Your task to perform on an android device: Add "asus zenbook" to the cart on target, then select checkout. Image 0: 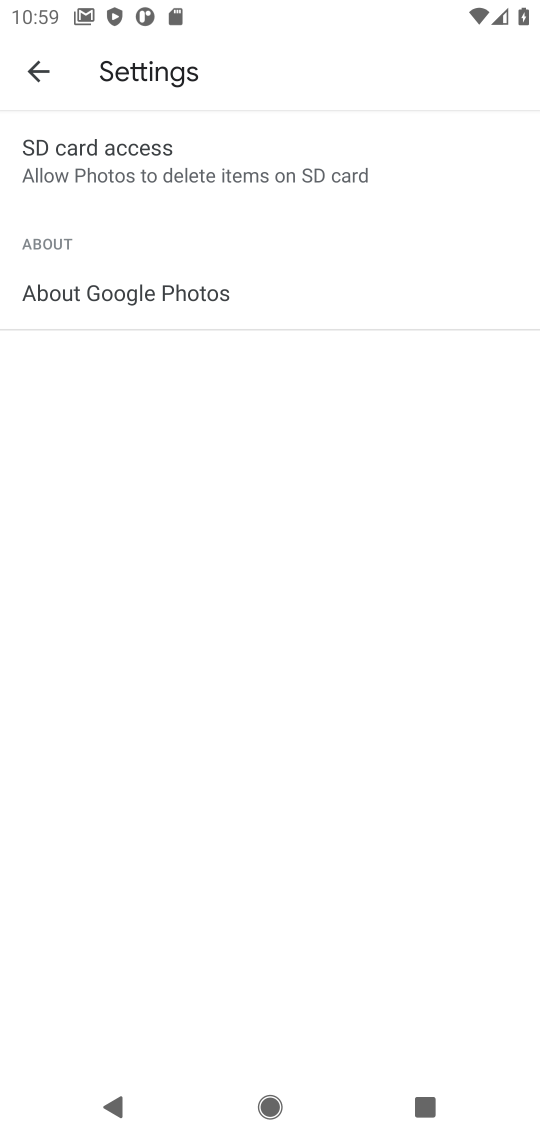
Step 0: press home button
Your task to perform on an android device: Add "asus zenbook" to the cart on target, then select checkout. Image 1: 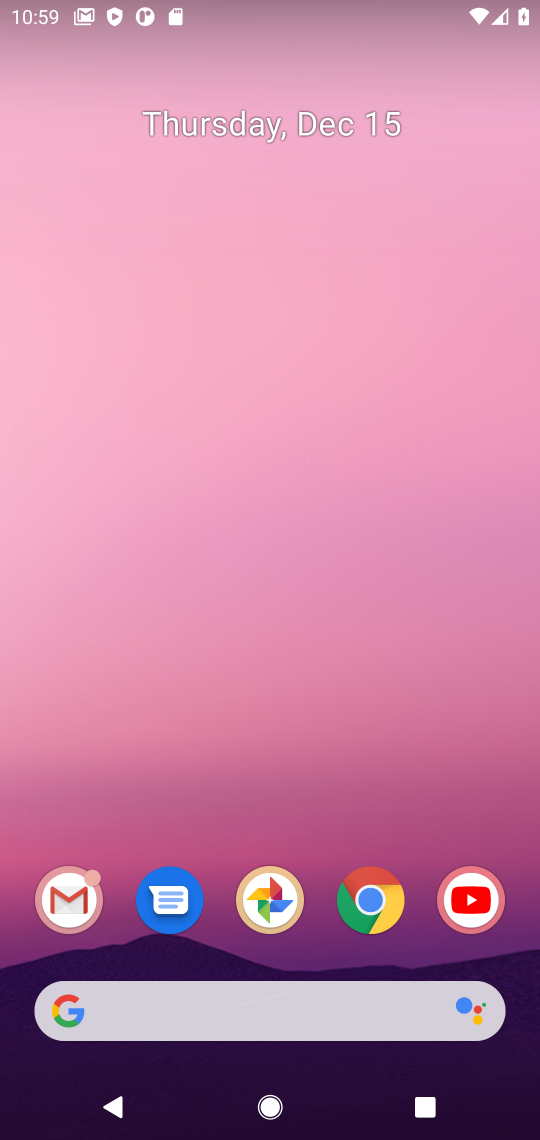
Step 1: click (362, 919)
Your task to perform on an android device: Add "asus zenbook" to the cart on target, then select checkout. Image 2: 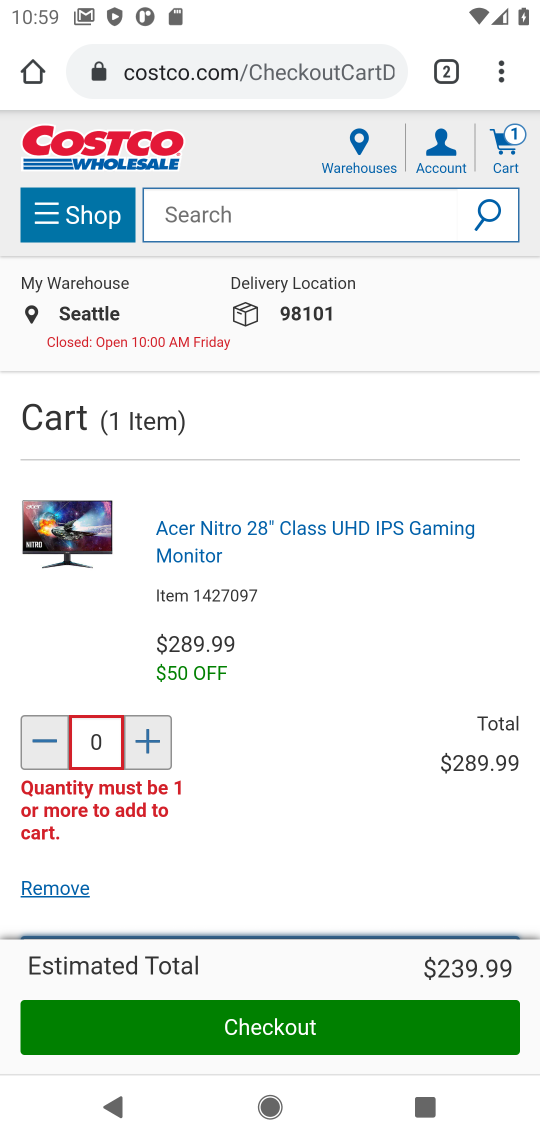
Step 2: click (242, 73)
Your task to perform on an android device: Add "asus zenbook" to the cart on target, then select checkout. Image 3: 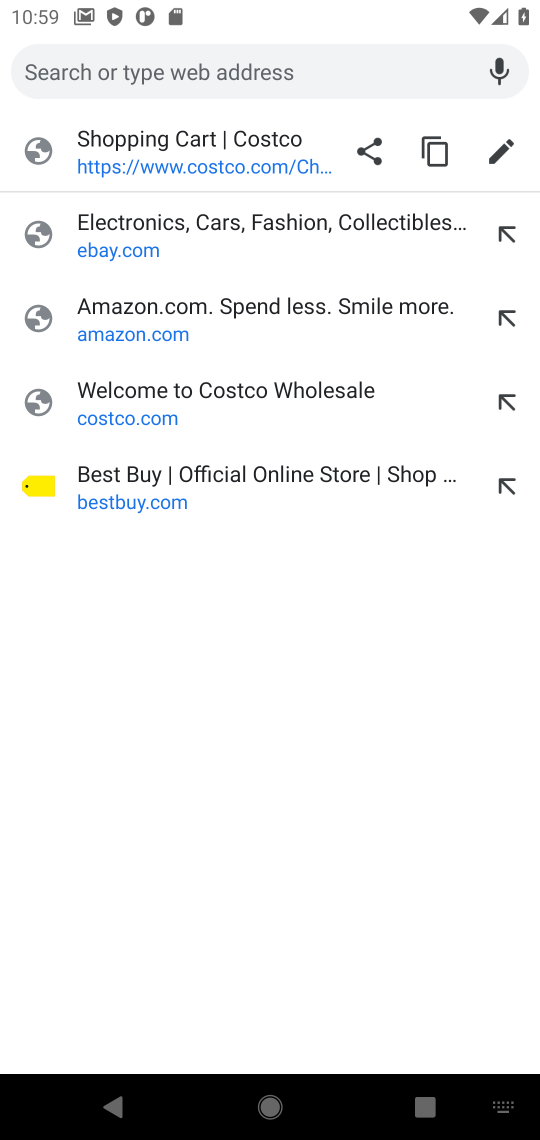
Step 3: type "target"
Your task to perform on an android device: Add "asus zenbook" to the cart on target, then select checkout. Image 4: 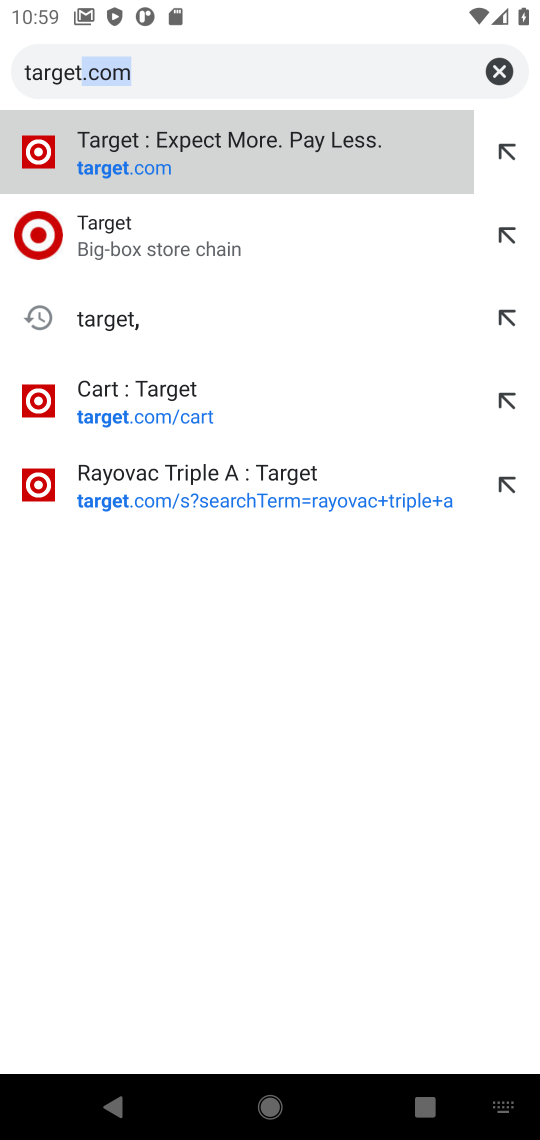
Step 4: click (104, 153)
Your task to perform on an android device: Add "asus zenbook" to the cart on target, then select checkout. Image 5: 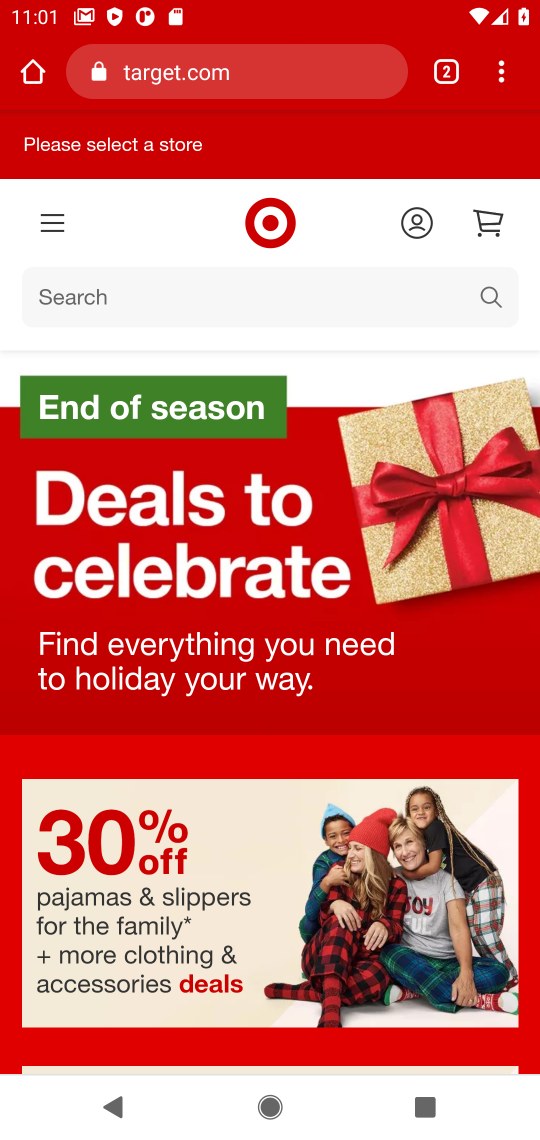
Step 5: click (181, 298)
Your task to perform on an android device: Add "asus zenbook" to the cart on target, then select checkout. Image 6: 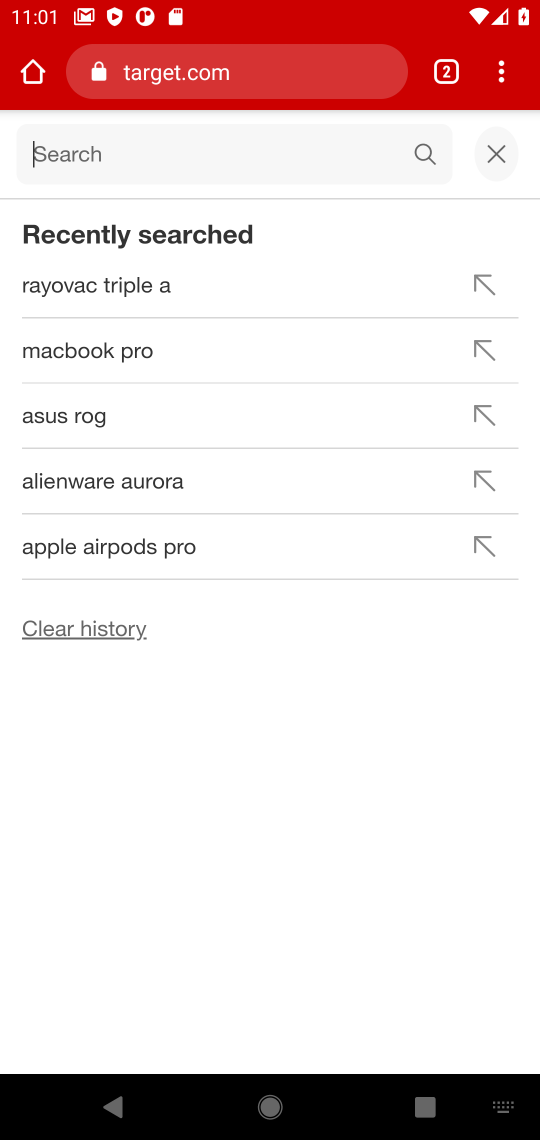
Step 6: type "asus zenbook"
Your task to perform on an android device: Add "asus zenbook" to the cart on target, then select checkout. Image 7: 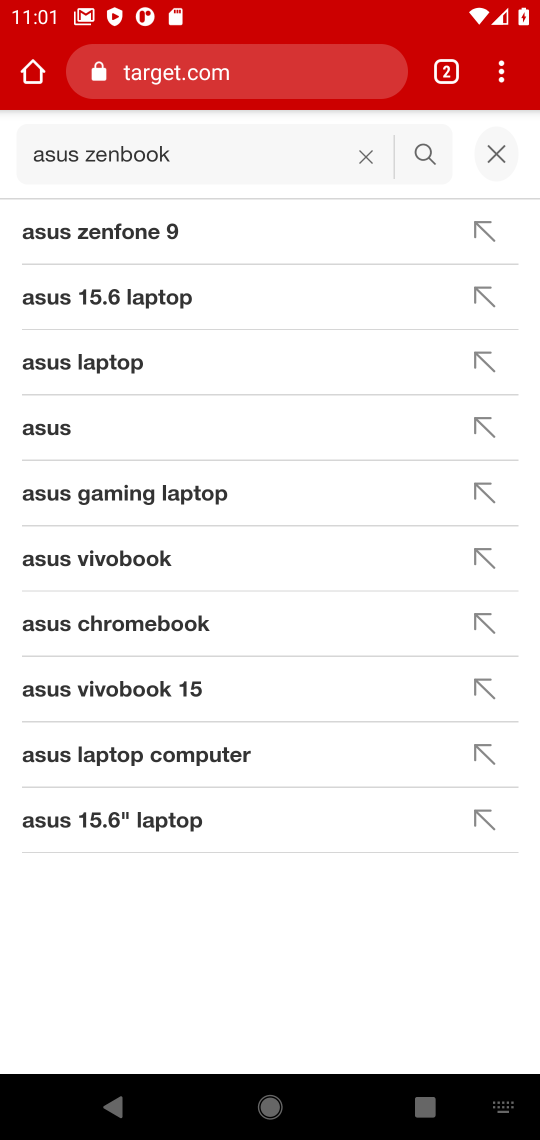
Step 7: press enter
Your task to perform on an android device: Add "asus zenbook" to the cart on target, then select checkout. Image 8: 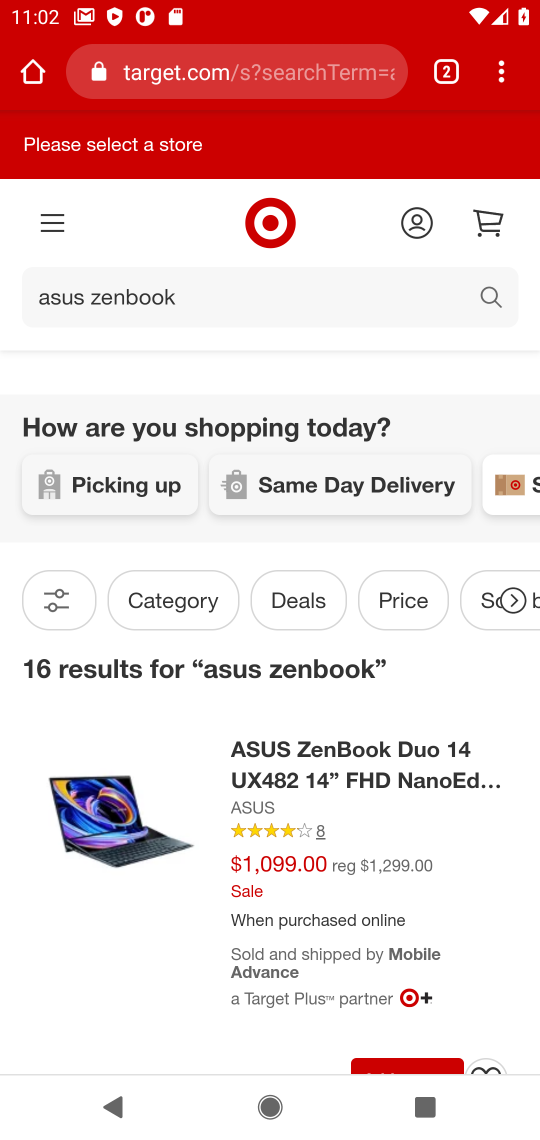
Step 8: click (289, 773)
Your task to perform on an android device: Add "asus zenbook" to the cart on target, then select checkout. Image 9: 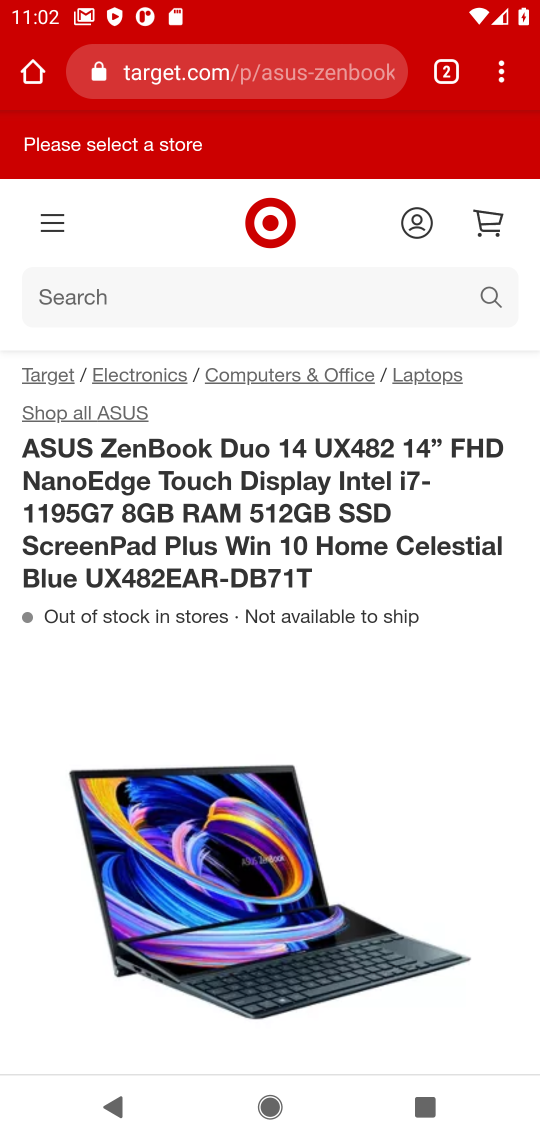
Step 9: drag from (442, 726) to (344, 244)
Your task to perform on an android device: Add "asus zenbook" to the cart on target, then select checkout. Image 10: 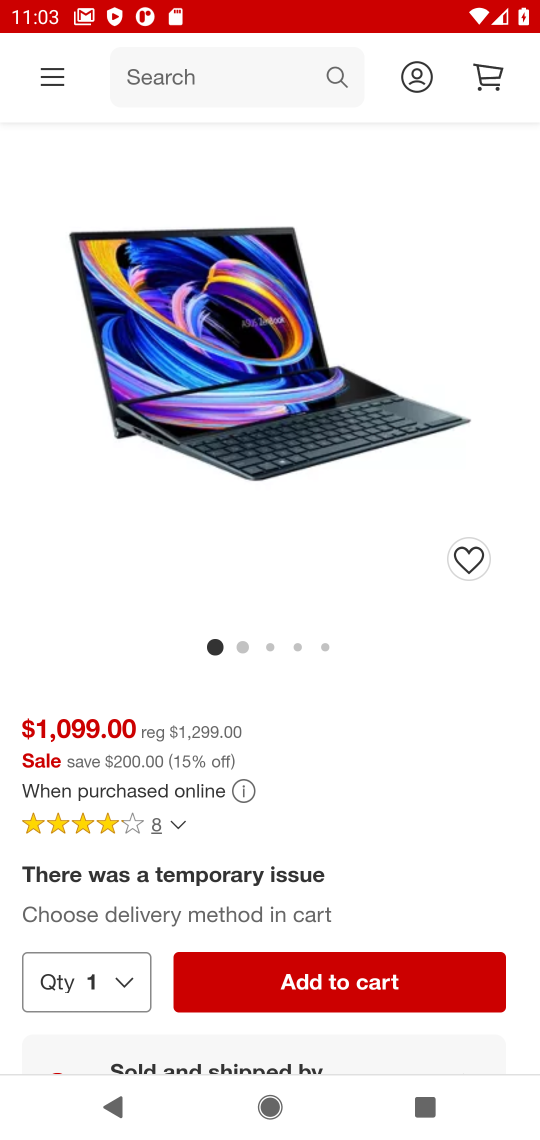
Step 10: click (319, 1004)
Your task to perform on an android device: Add "asus zenbook" to the cart on target, then select checkout. Image 11: 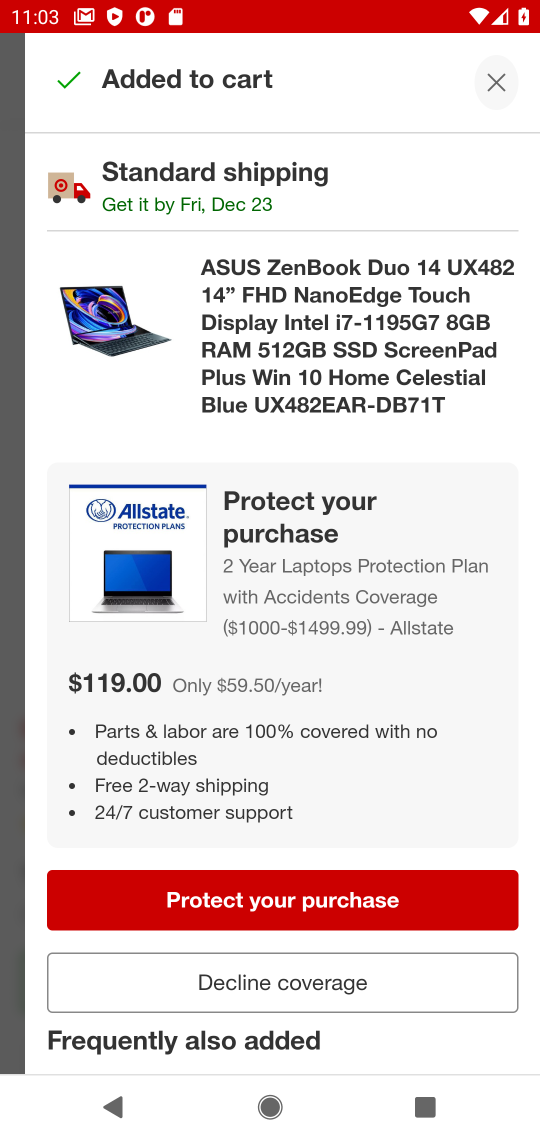
Step 11: click (228, 903)
Your task to perform on an android device: Add "asus zenbook" to the cart on target, then select checkout. Image 12: 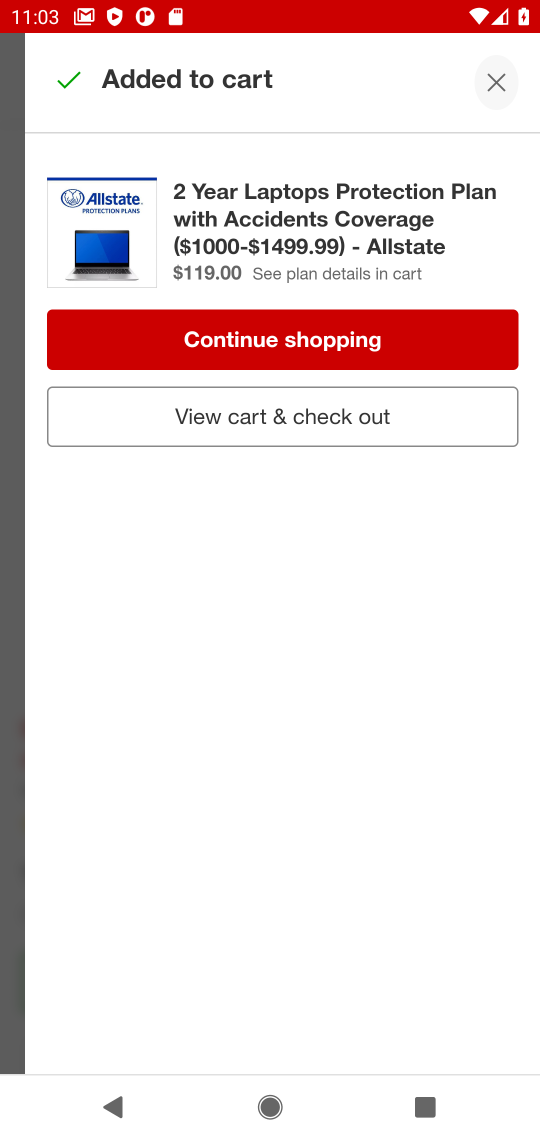
Step 12: click (289, 409)
Your task to perform on an android device: Add "asus zenbook" to the cart on target, then select checkout. Image 13: 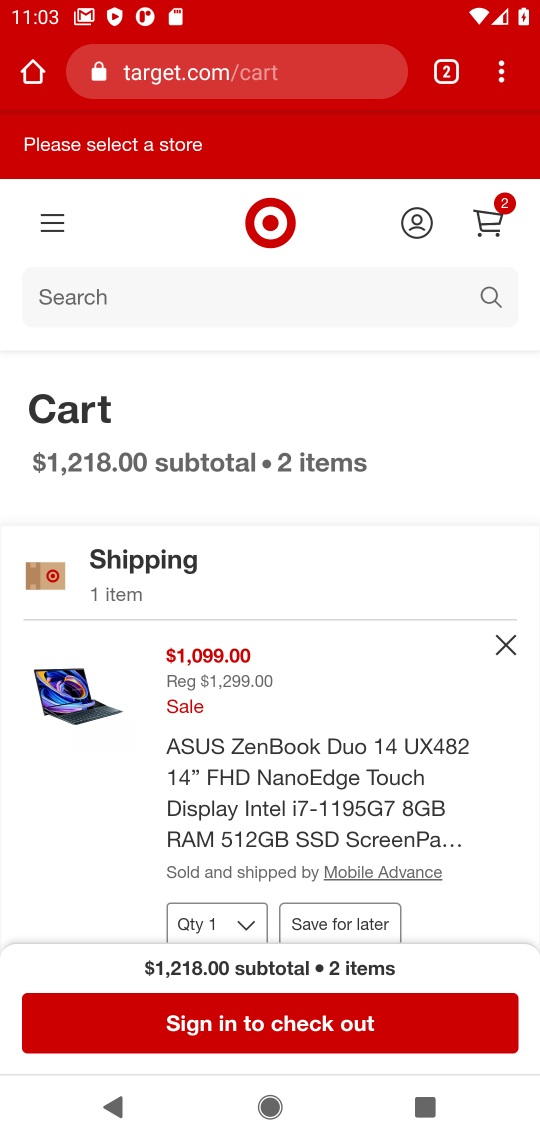
Step 13: click (370, 1030)
Your task to perform on an android device: Add "asus zenbook" to the cart on target, then select checkout. Image 14: 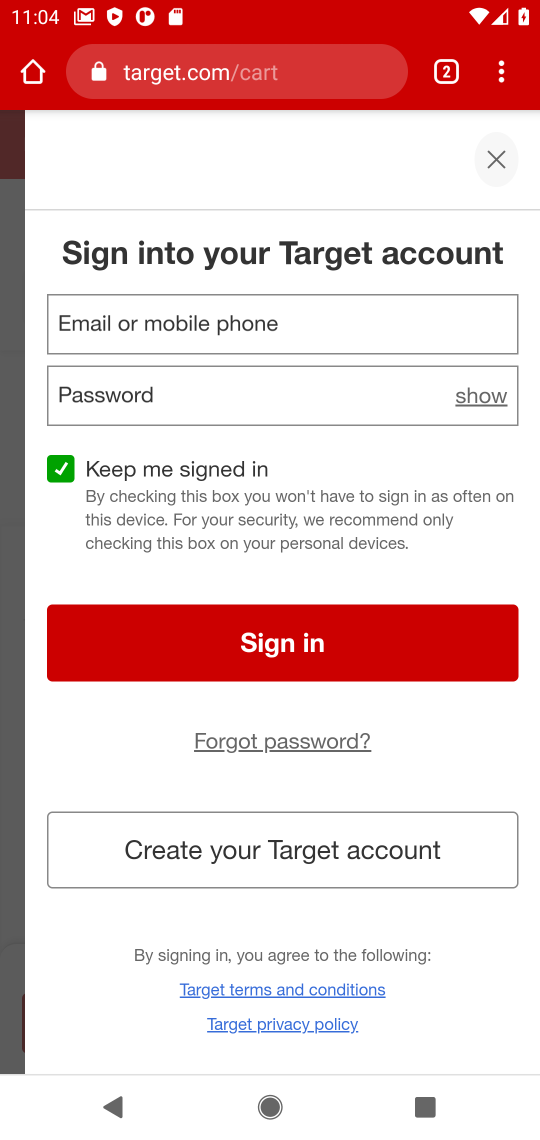
Step 14: task complete